Your task to perform on an android device: Open Google Chrome and click the shortcut for Amazon.com Image 0: 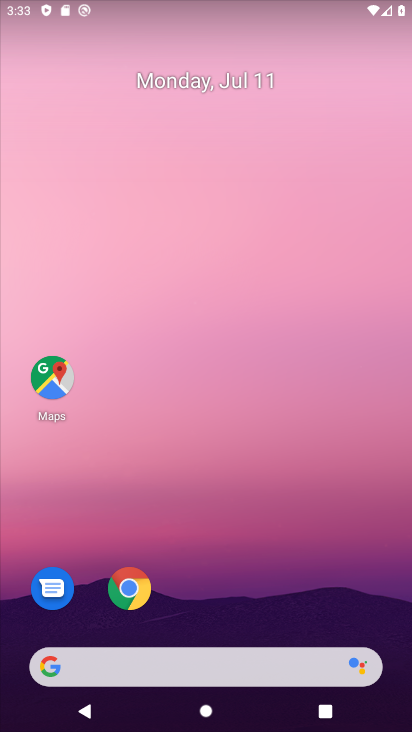
Step 0: drag from (347, 594) to (369, 118)
Your task to perform on an android device: Open Google Chrome and click the shortcut for Amazon.com Image 1: 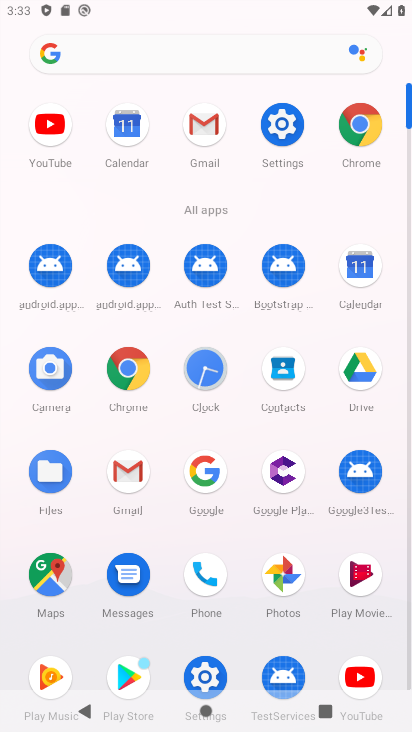
Step 1: click (137, 370)
Your task to perform on an android device: Open Google Chrome and click the shortcut for Amazon.com Image 2: 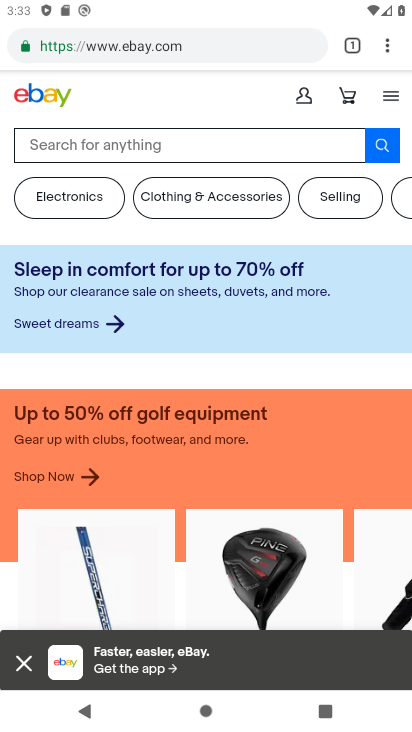
Step 2: press back button
Your task to perform on an android device: Open Google Chrome and click the shortcut for Amazon.com Image 3: 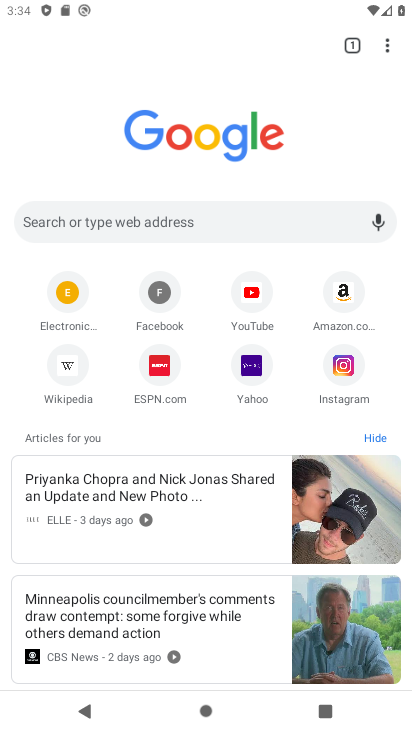
Step 3: click (347, 298)
Your task to perform on an android device: Open Google Chrome and click the shortcut for Amazon.com Image 4: 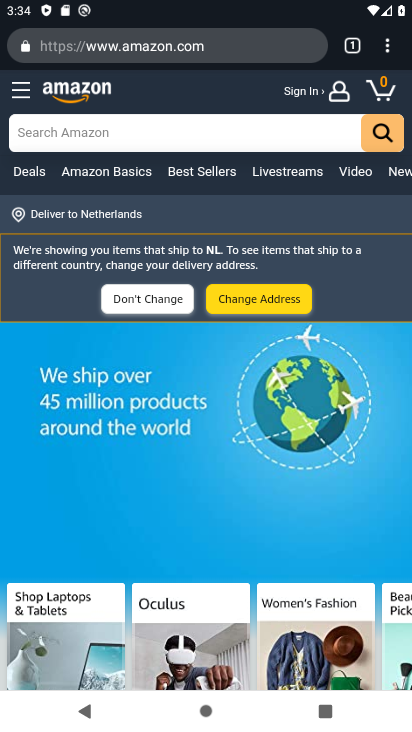
Step 4: task complete